Your task to perform on an android device: see sites visited before in the chrome app Image 0: 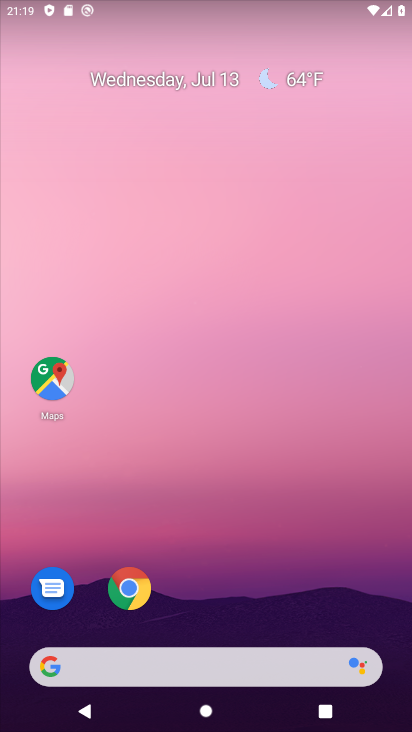
Step 0: click (133, 583)
Your task to perform on an android device: see sites visited before in the chrome app Image 1: 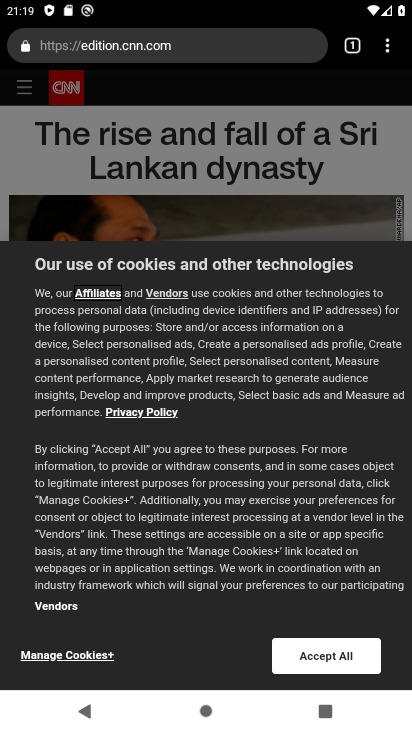
Step 1: task complete